Your task to perform on an android device: uninstall "AliExpress" Image 0: 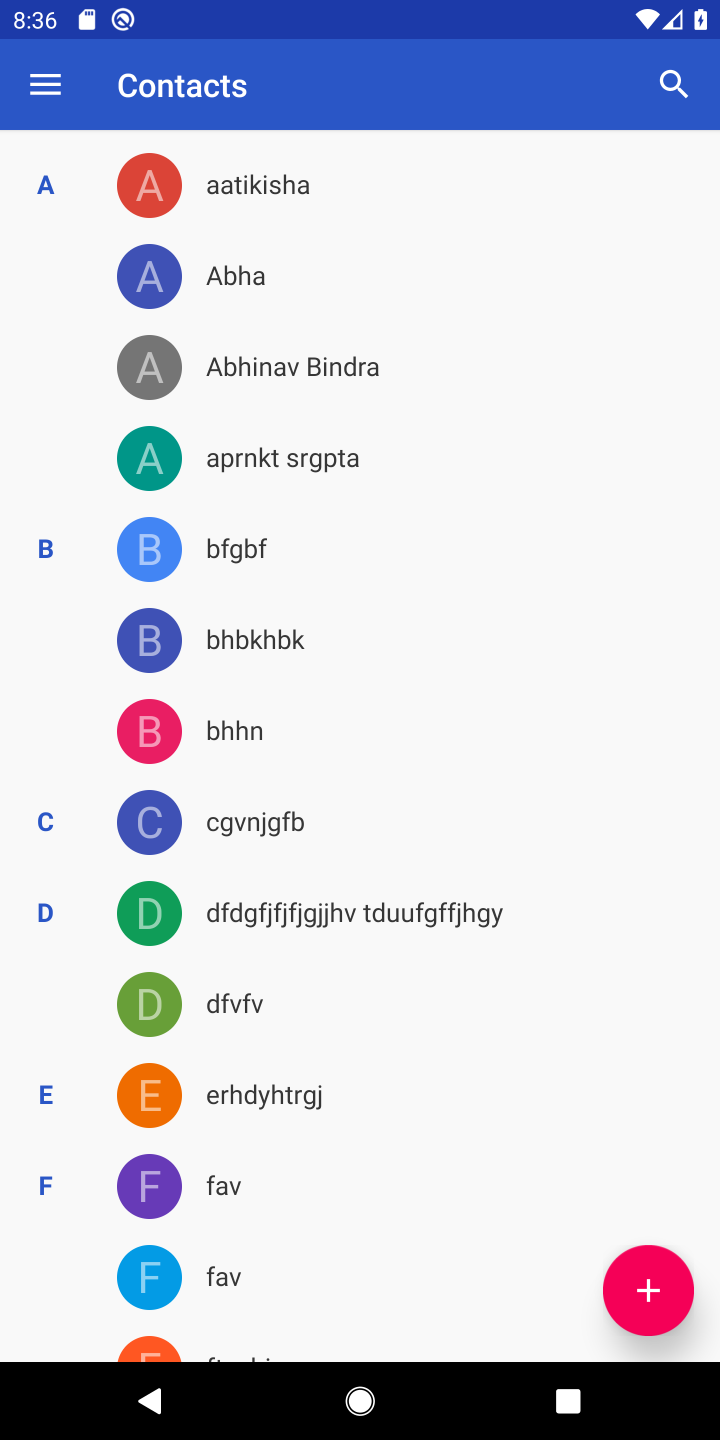
Step 0: press home button
Your task to perform on an android device: uninstall "AliExpress" Image 1: 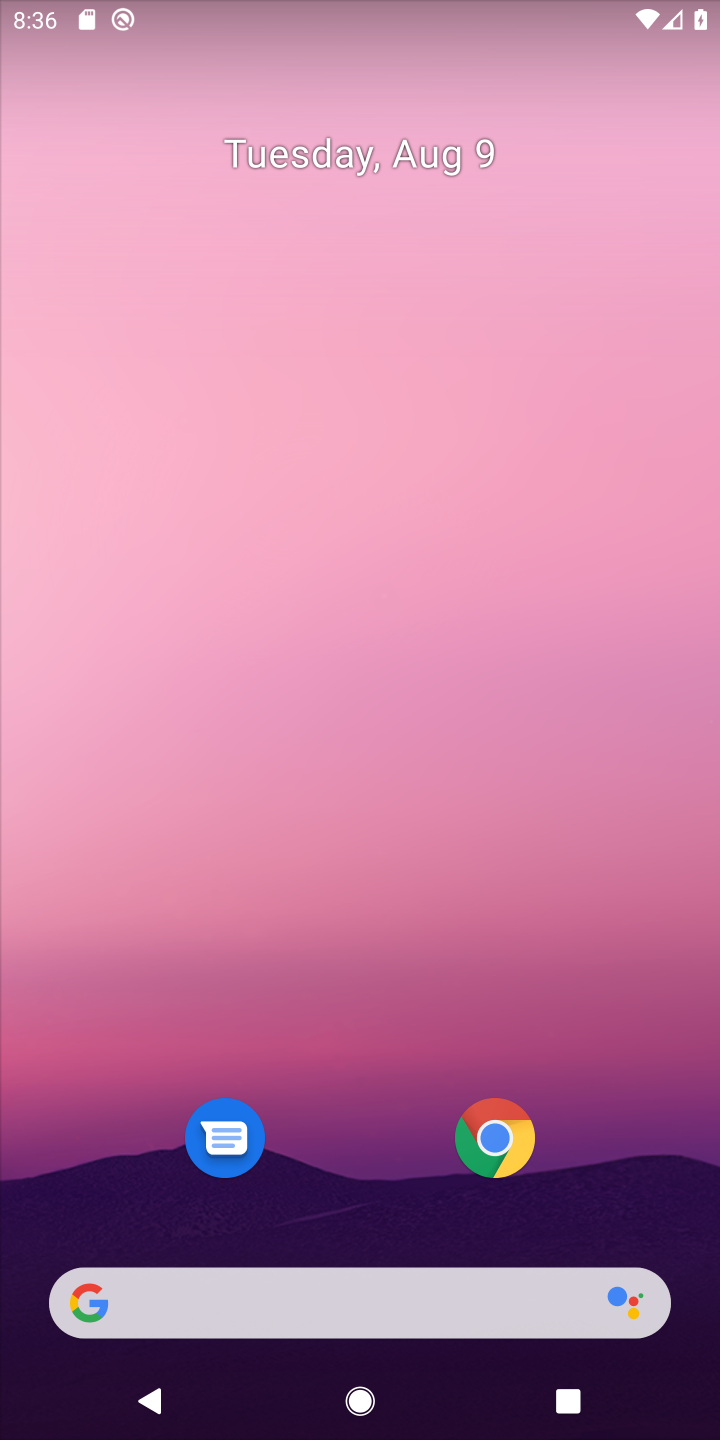
Step 1: drag from (331, 1093) to (331, 252)
Your task to perform on an android device: uninstall "AliExpress" Image 2: 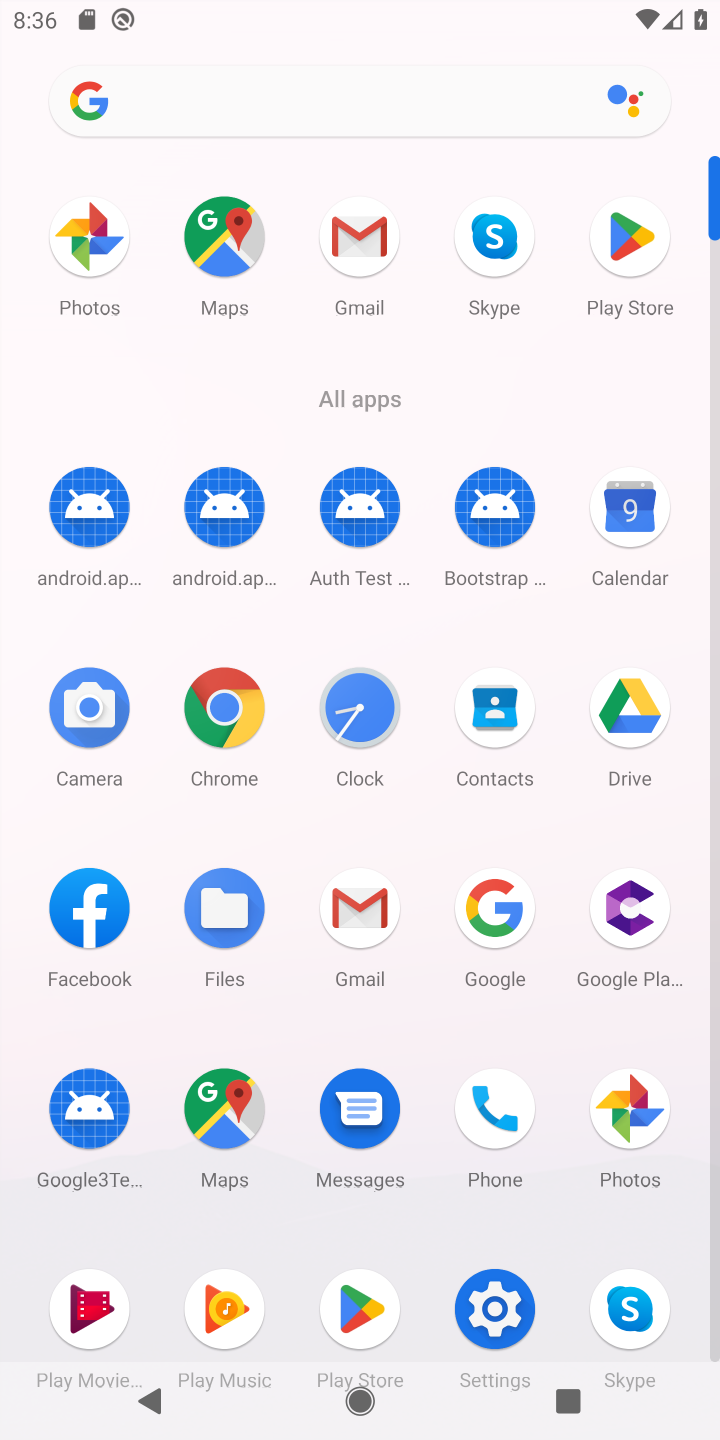
Step 2: click (639, 257)
Your task to perform on an android device: uninstall "AliExpress" Image 3: 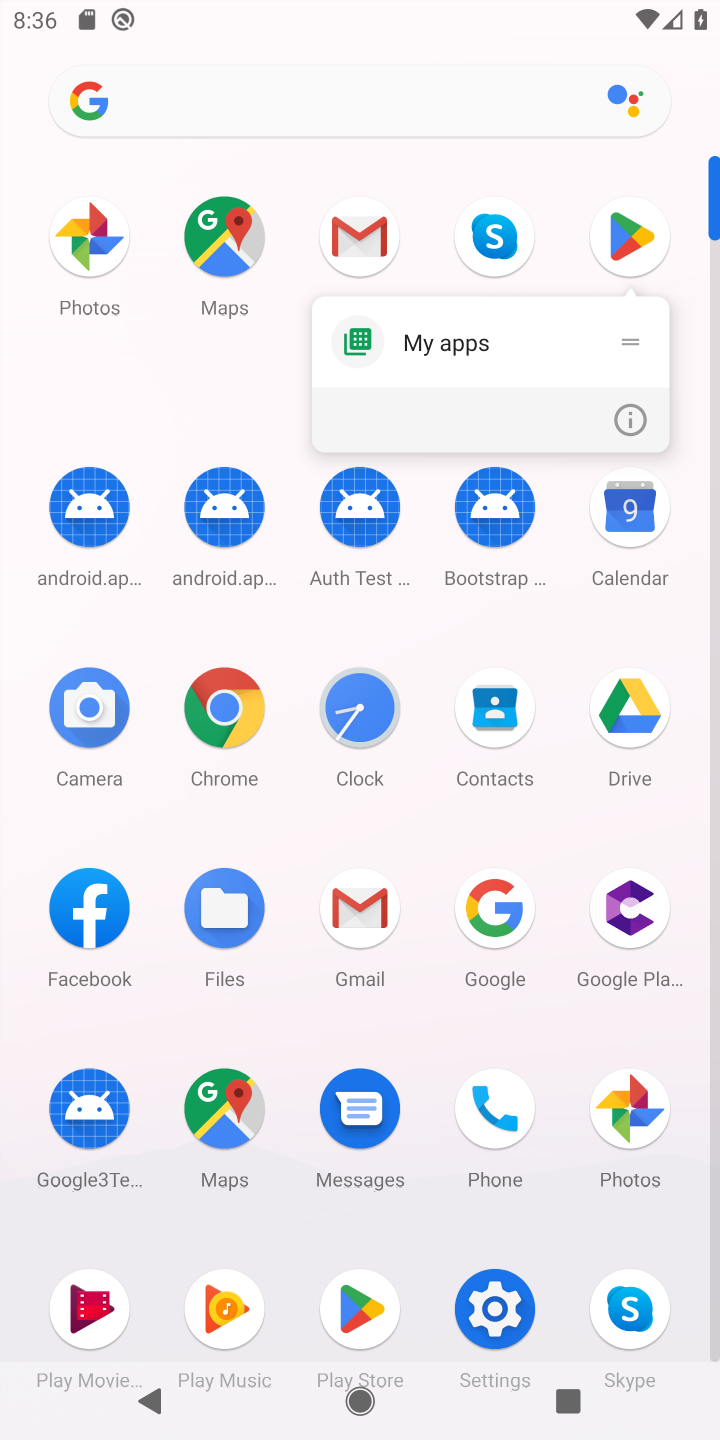
Step 3: click (609, 242)
Your task to perform on an android device: uninstall "AliExpress" Image 4: 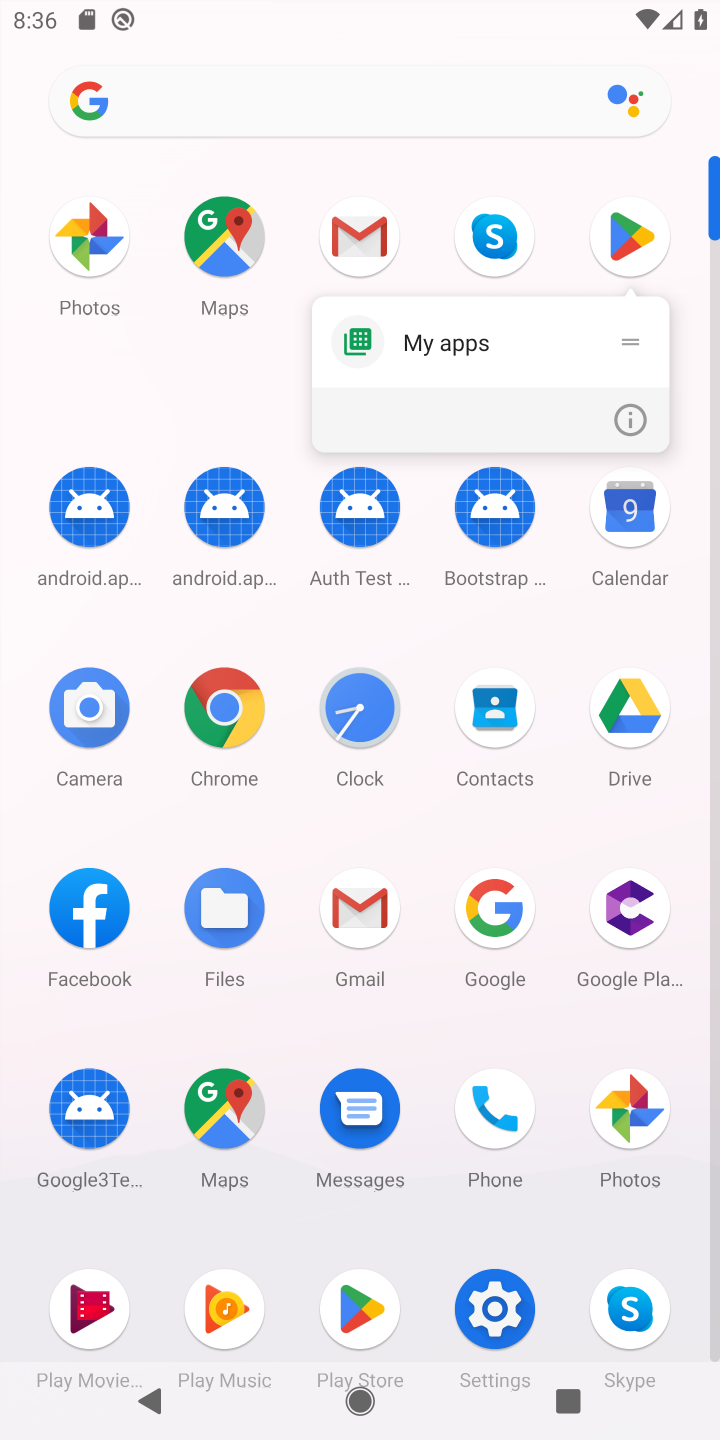
Step 4: click (609, 242)
Your task to perform on an android device: uninstall "AliExpress" Image 5: 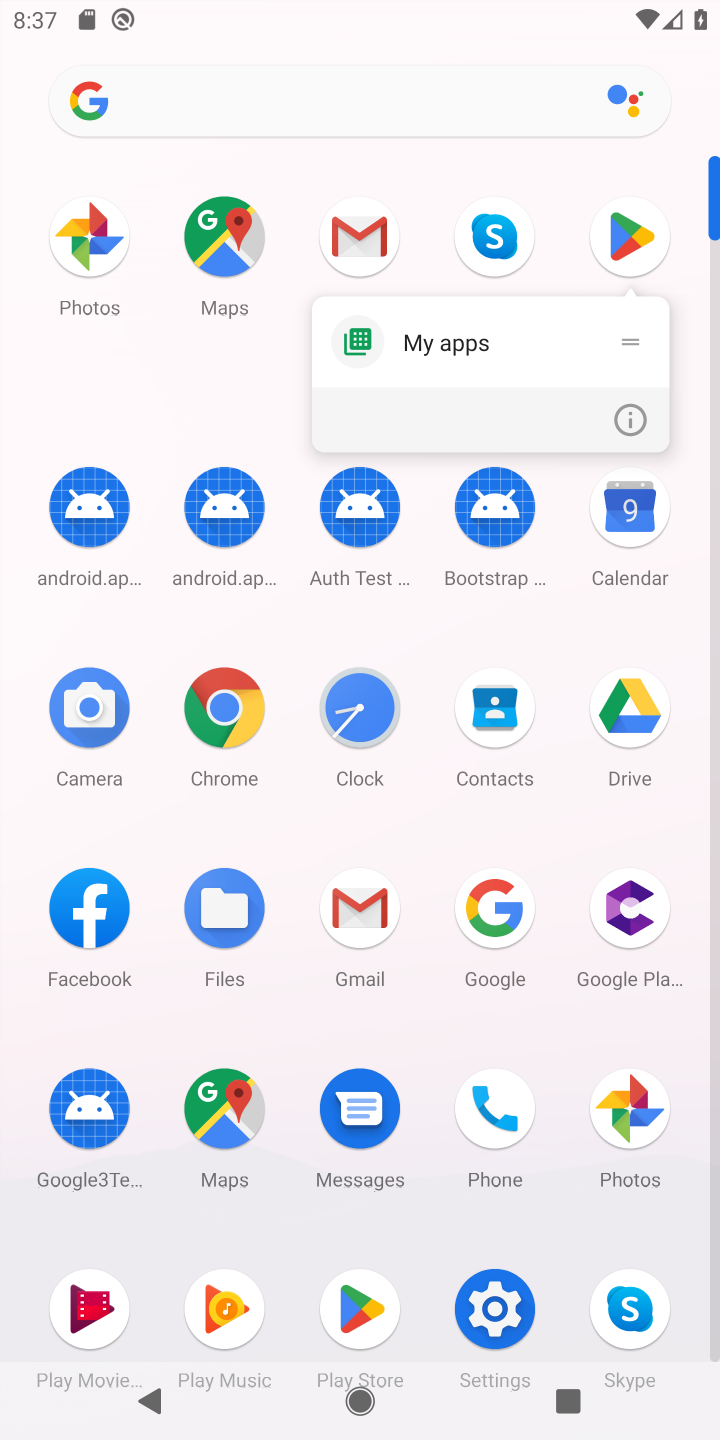
Step 5: click (615, 231)
Your task to perform on an android device: uninstall "AliExpress" Image 6: 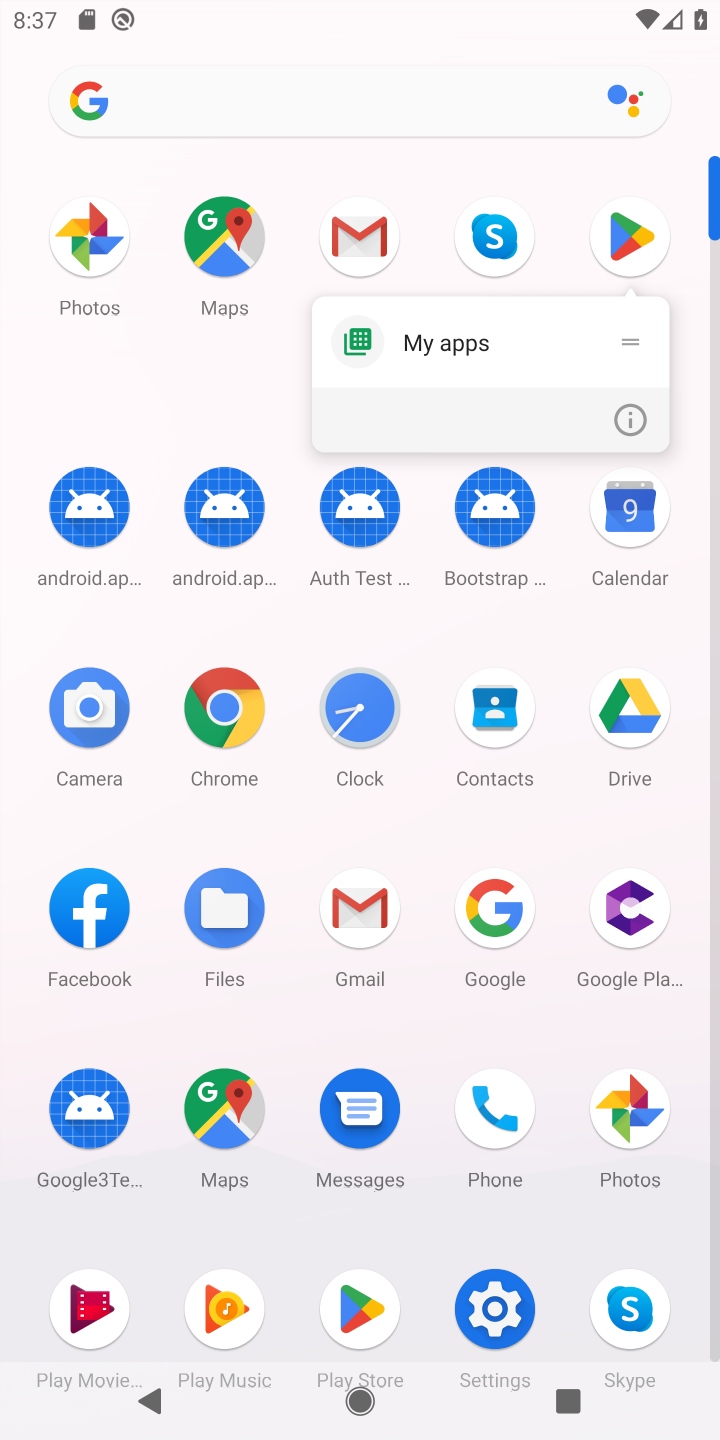
Step 6: click (615, 231)
Your task to perform on an android device: uninstall "AliExpress" Image 7: 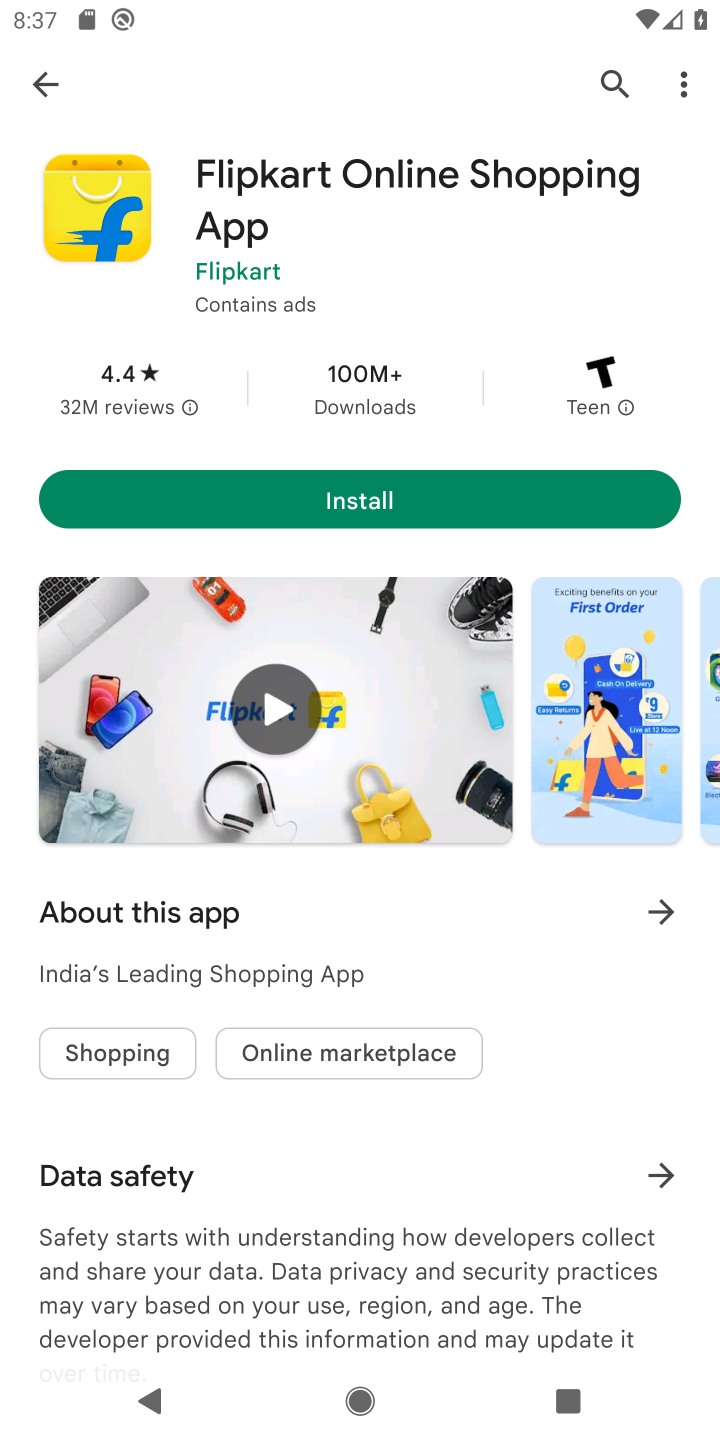
Step 7: click (600, 77)
Your task to perform on an android device: uninstall "AliExpress" Image 8: 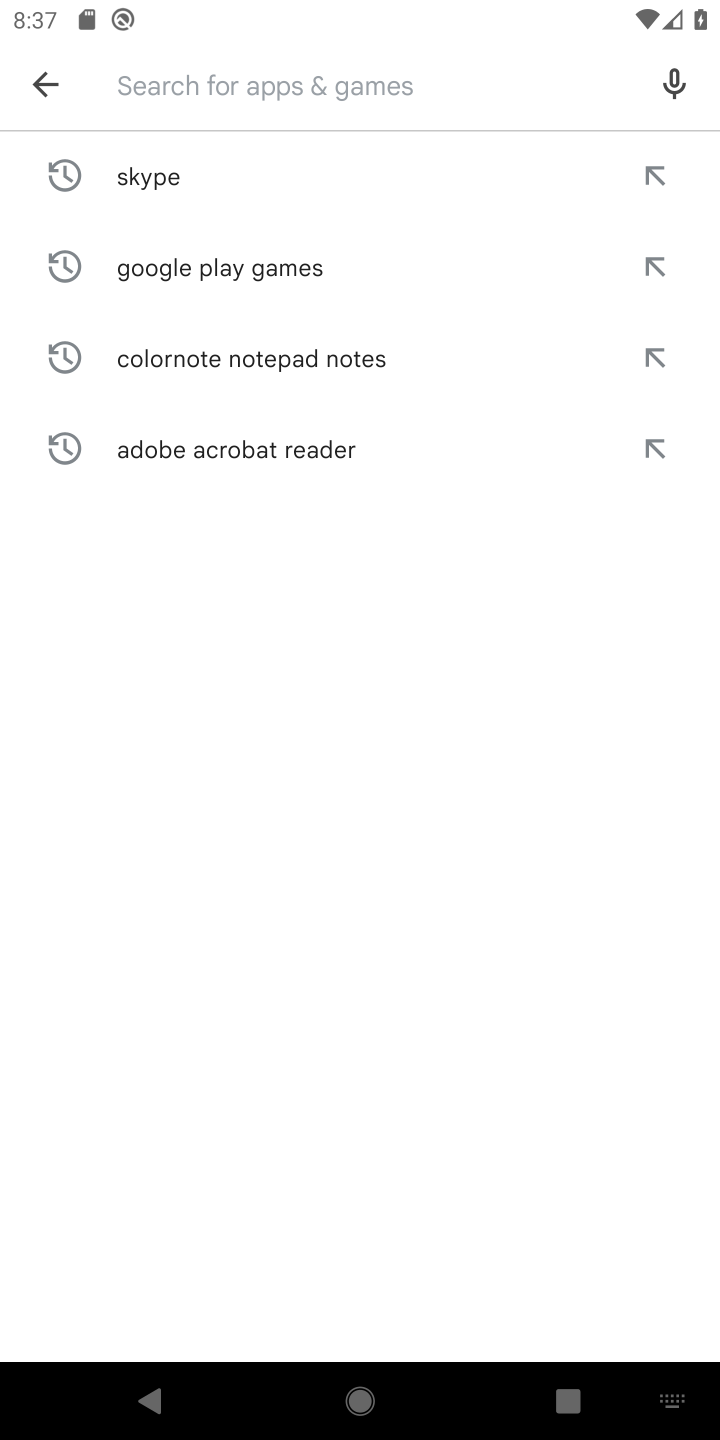
Step 8: type "AliExpress"
Your task to perform on an android device: uninstall "AliExpress" Image 9: 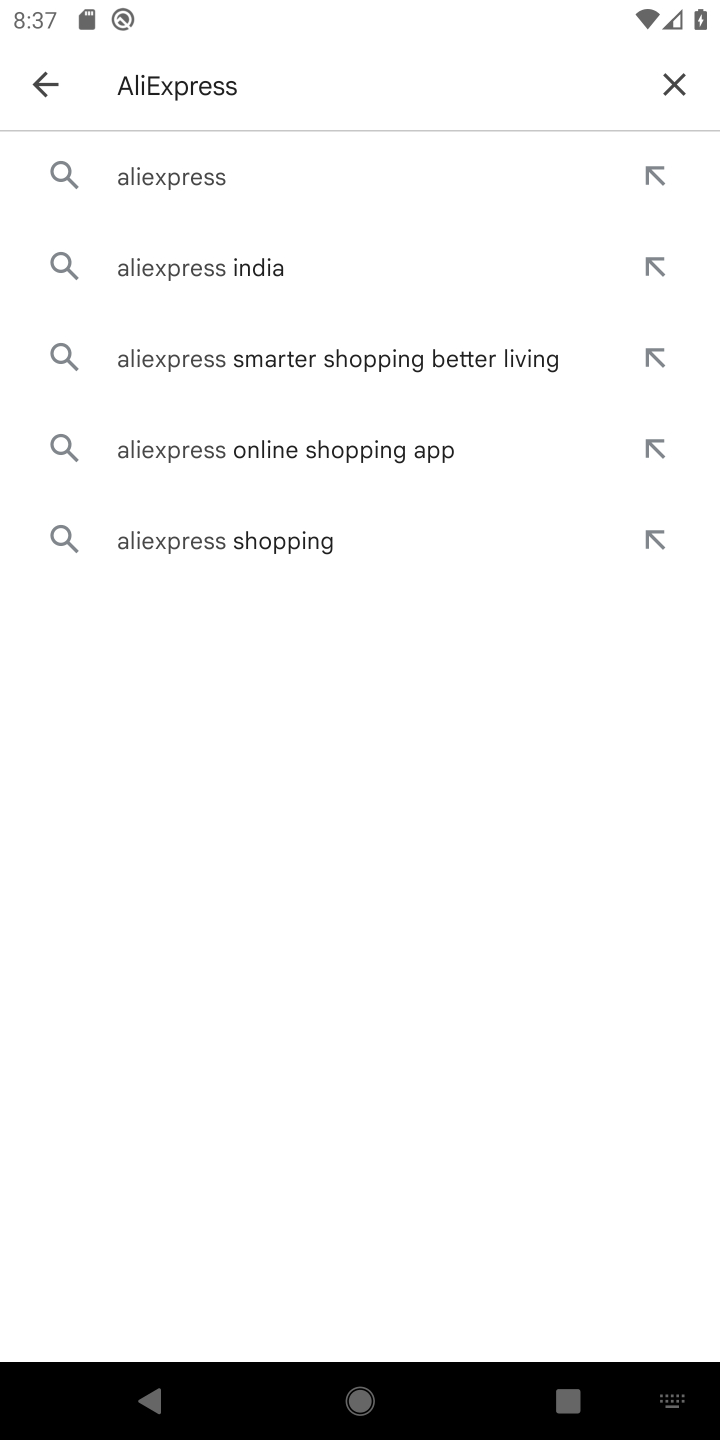
Step 9: click (172, 166)
Your task to perform on an android device: uninstall "AliExpress" Image 10: 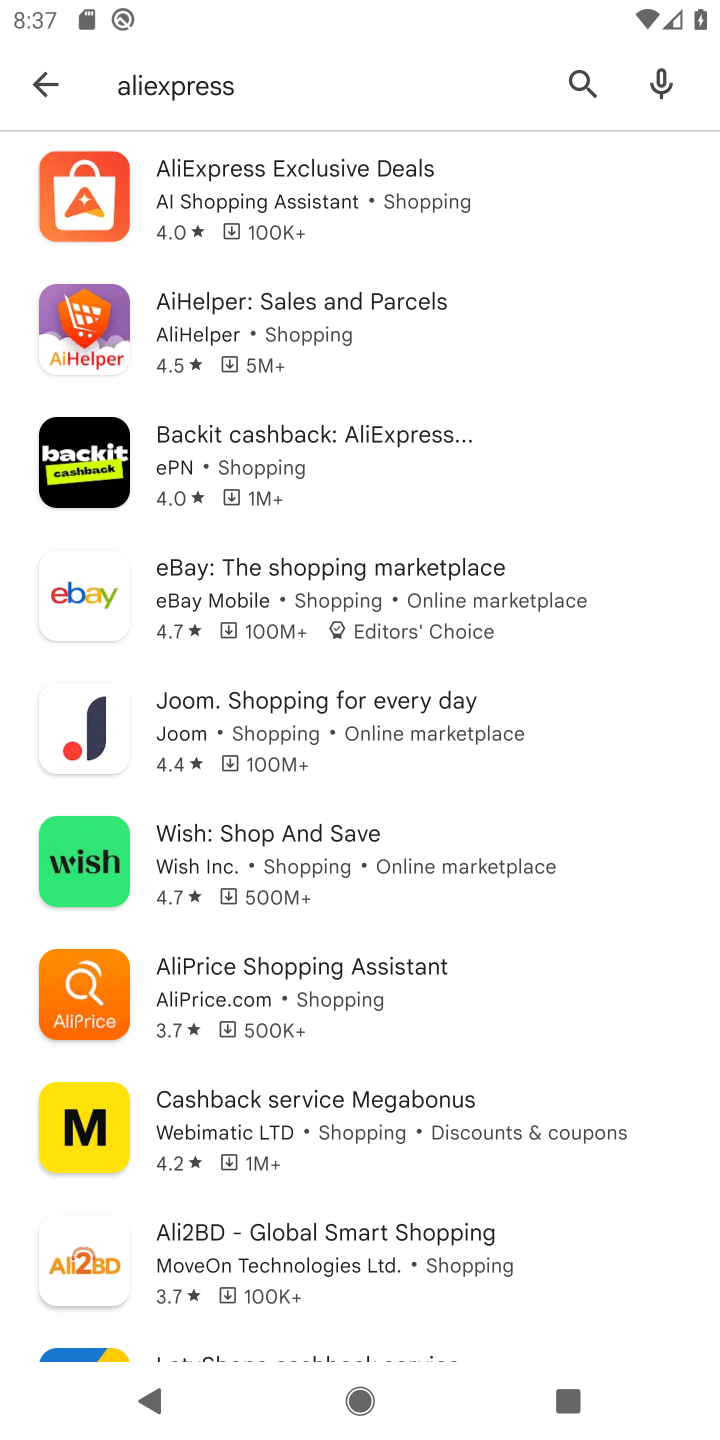
Step 10: click (480, 178)
Your task to perform on an android device: uninstall "AliExpress" Image 11: 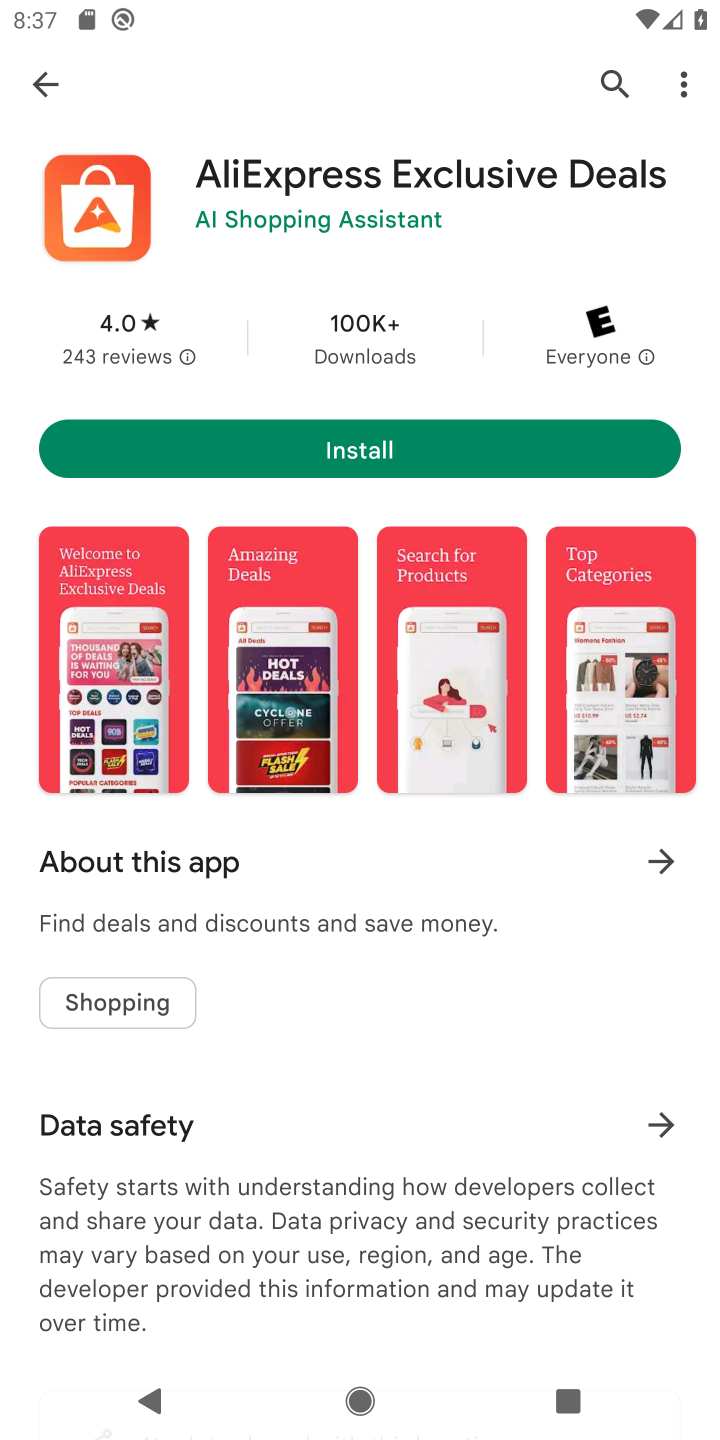
Step 11: task complete